Your task to perform on an android device: See recent photos Image 0: 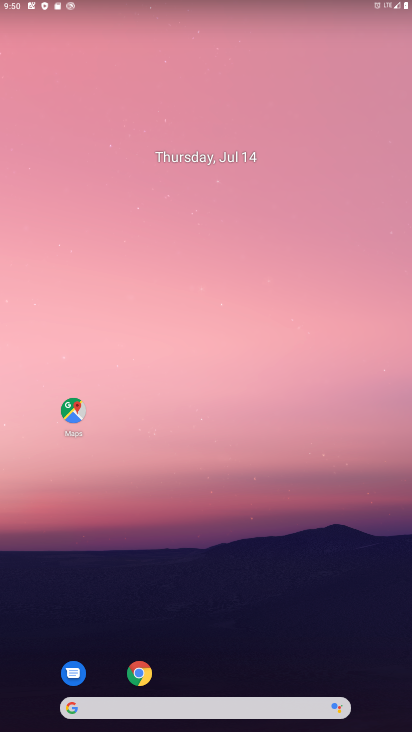
Step 0: drag from (187, 707) to (253, 306)
Your task to perform on an android device: See recent photos Image 1: 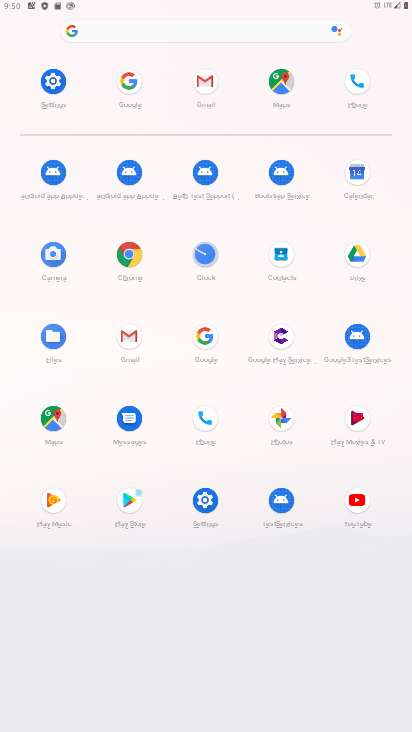
Step 1: click (281, 422)
Your task to perform on an android device: See recent photos Image 2: 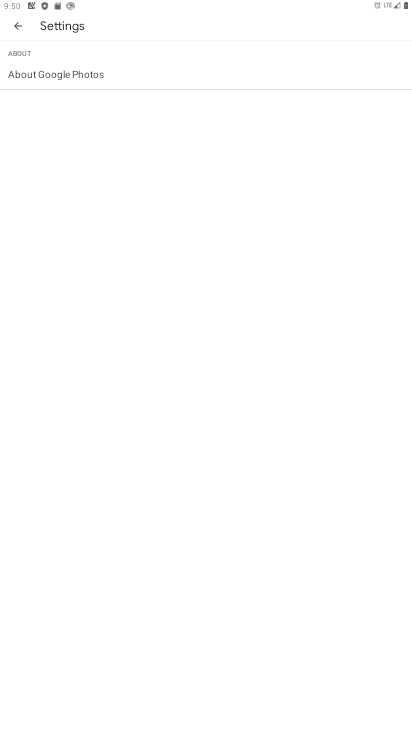
Step 2: press back button
Your task to perform on an android device: See recent photos Image 3: 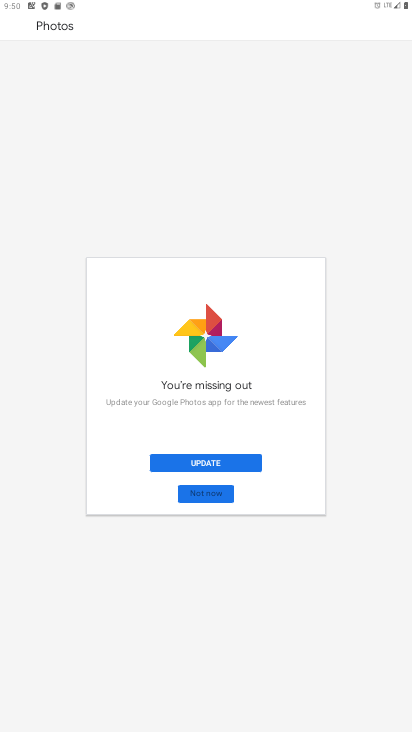
Step 3: click (199, 467)
Your task to perform on an android device: See recent photos Image 4: 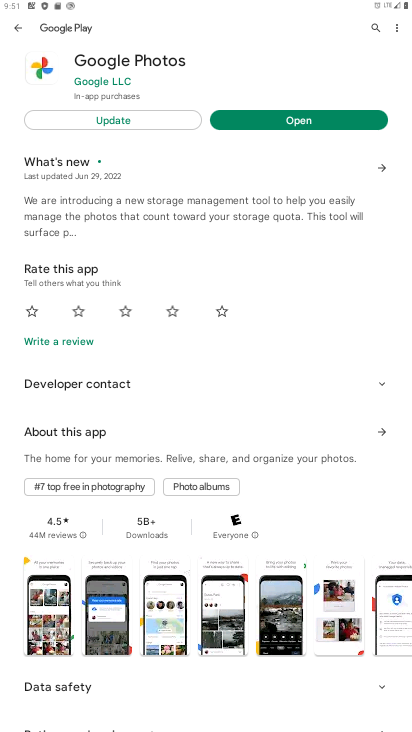
Step 4: click (96, 123)
Your task to perform on an android device: See recent photos Image 5: 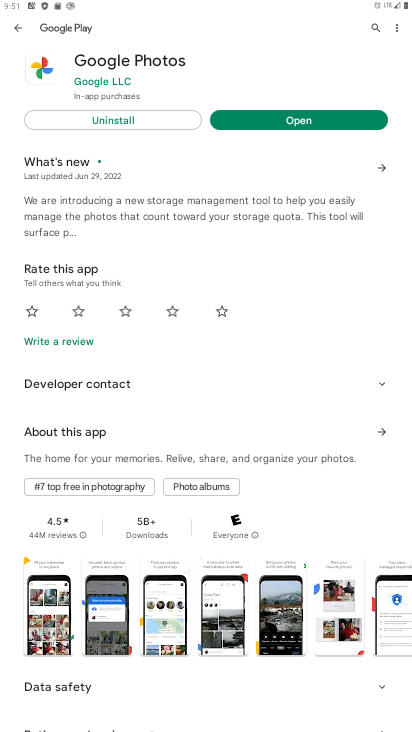
Step 5: click (293, 117)
Your task to perform on an android device: See recent photos Image 6: 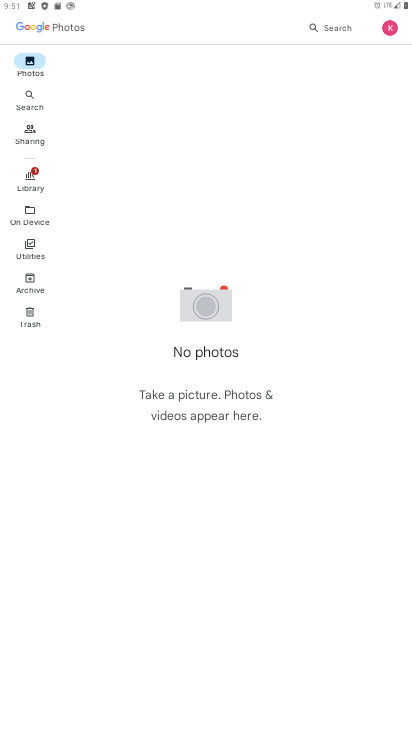
Step 6: click (31, 180)
Your task to perform on an android device: See recent photos Image 7: 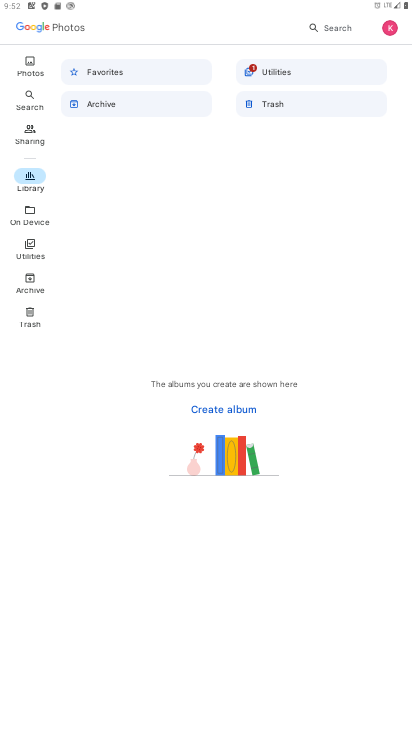
Step 7: click (36, 65)
Your task to perform on an android device: See recent photos Image 8: 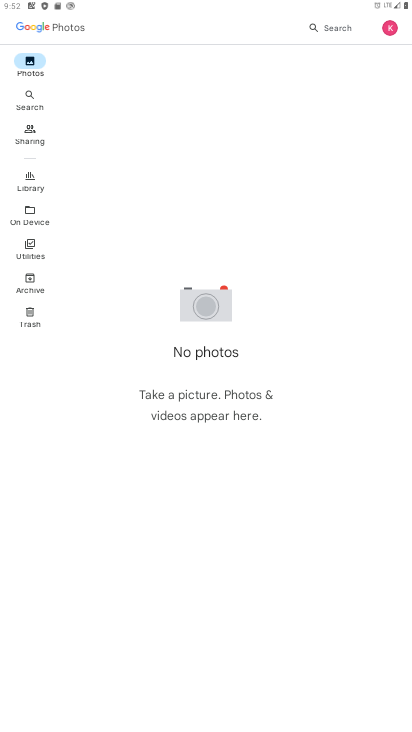
Step 8: task complete